Your task to perform on an android device: open app "ColorNote Notepad Notes" Image 0: 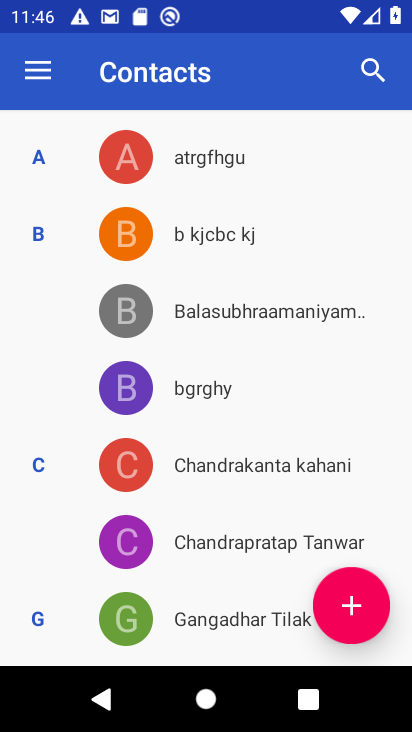
Step 0: press home button
Your task to perform on an android device: open app "ColorNote Notepad Notes" Image 1: 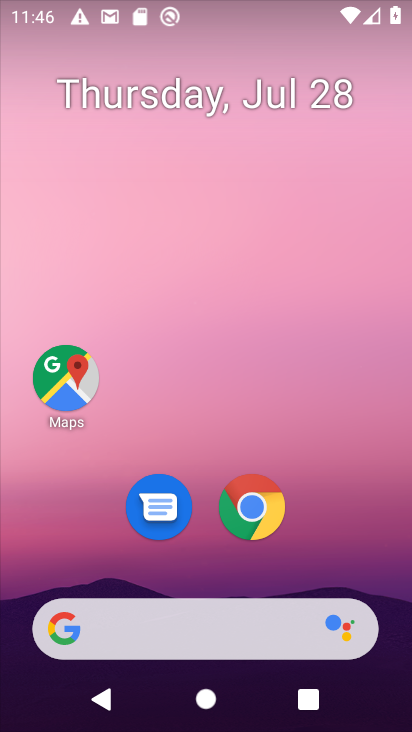
Step 1: drag from (221, 545) to (223, 8)
Your task to perform on an android device: open app "ColorNote Notepad Notes" Image 2: 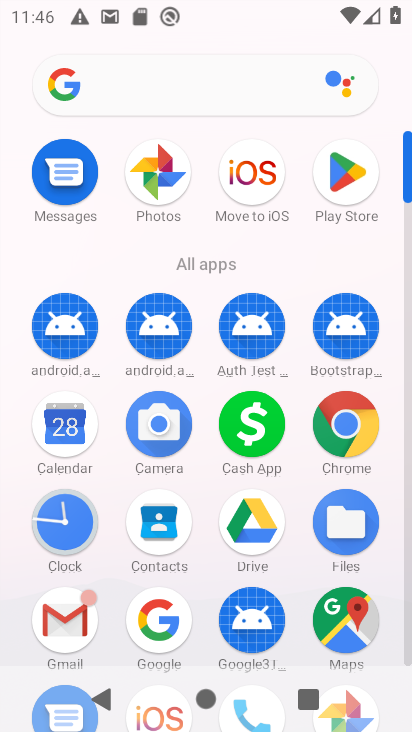
Step 2: click (355, 187)
Your task to perform on an android device: open app "ColorNote Notepad Notes" Image 3: 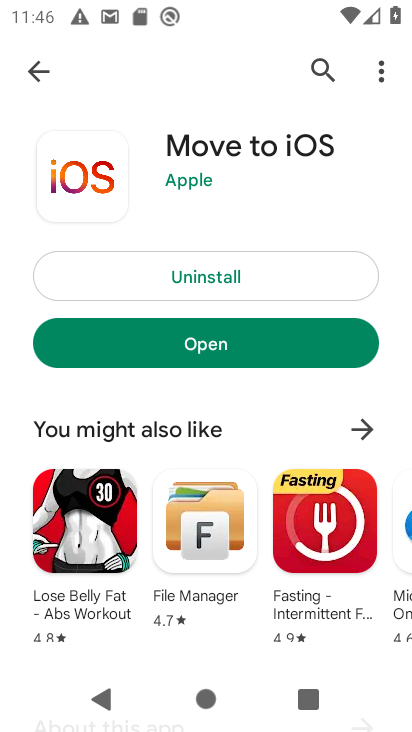
Step 3: click (44, 66)
Your task to perform on an android device: open app "ColorNote Notepad Notes" Image 4: 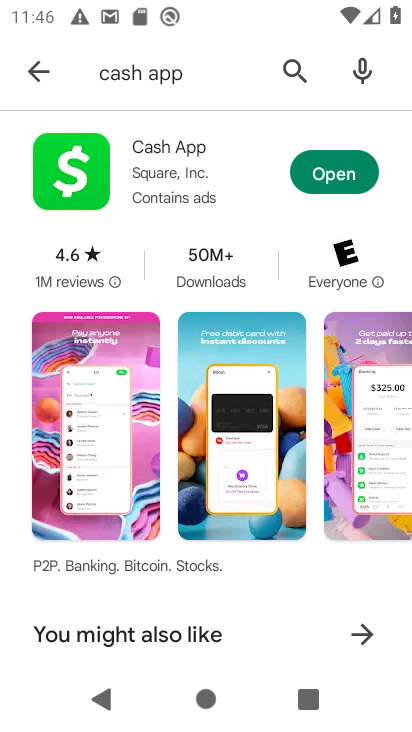
Step 4: click (145, 95)
Your task to perform on an android device: open app "ColorNote Notepad Notes" Image 5: 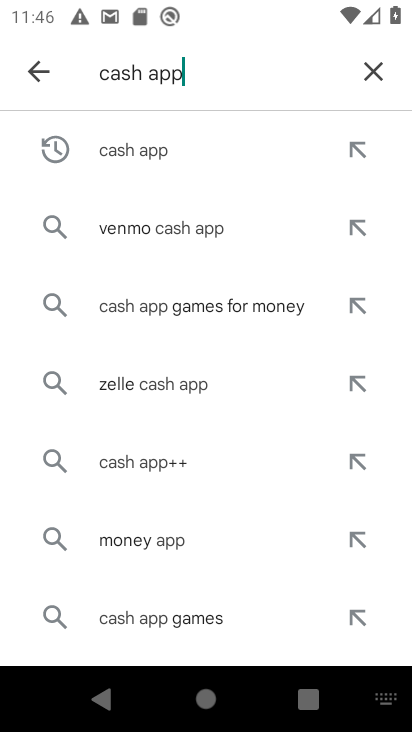
Step 5: click (377, 69)
Your task to perform on an android device: open app "ColorNote Notepad Notes" Image 6: 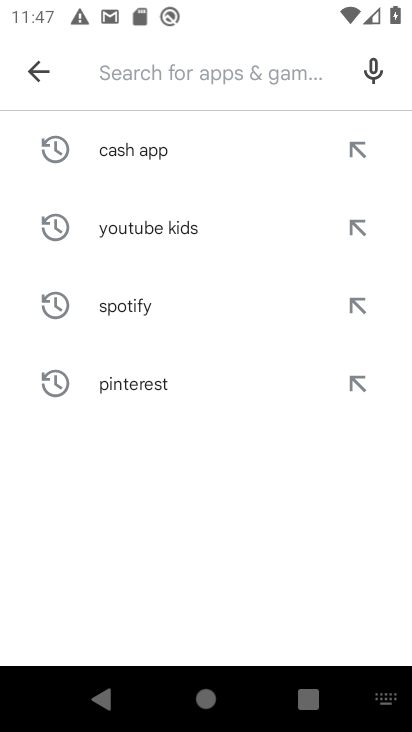
Step 6: type "colorNOte Notepad Notes"
Your task to perform on an android device: open app "ColorNote Notepad Notes" Image 7: 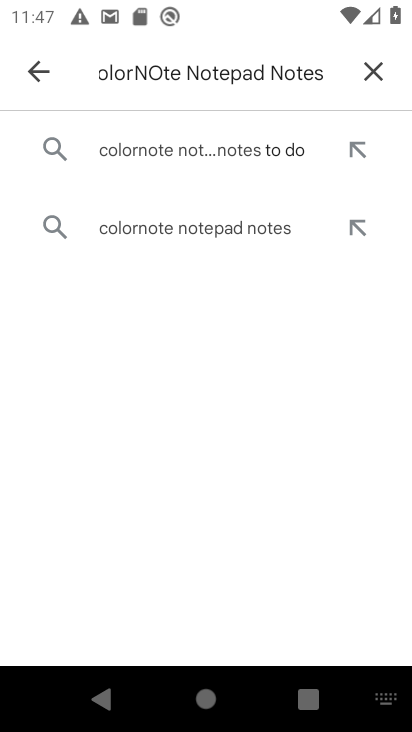
Step 7: click (186, 140)
Your task to perform on an android device: open app "ColorNote Notepad Notes" Image 8: 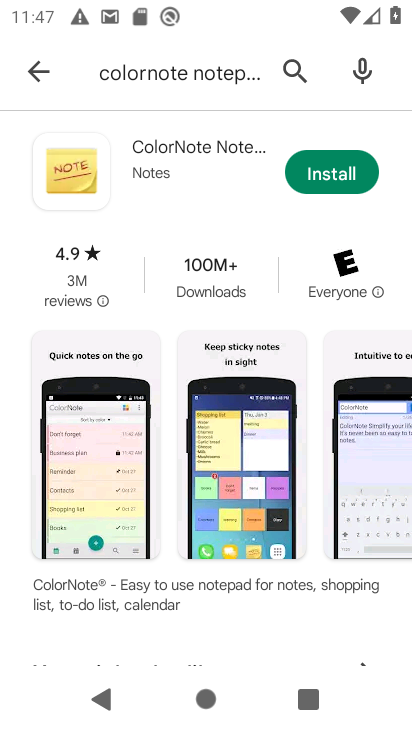
Step 8: task complete